Your task to perform on an android device: Open the web browser Image 0: 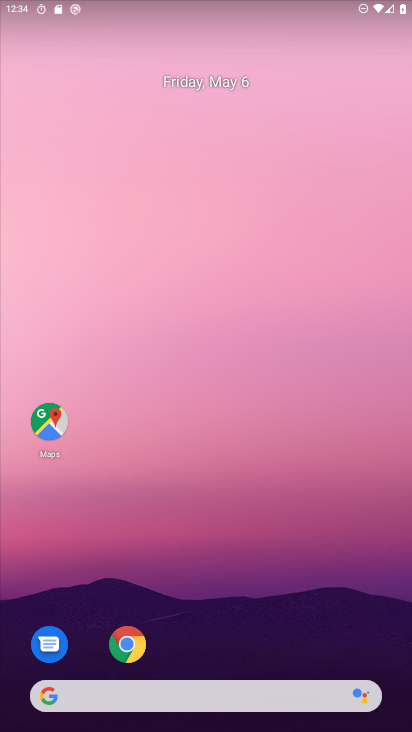
Step 0: drag from (322, 554) to (274, 105)
Your task to perform on an android device: Open the web browser Image 1: 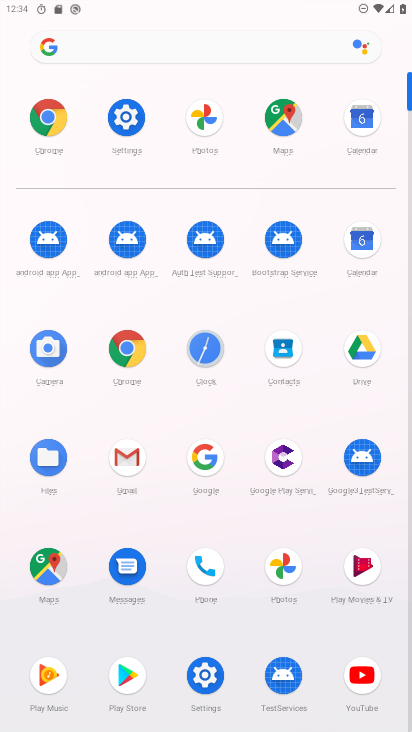
Step 1: click (137, 357)
Your task to perform on an android device: Open the web browser Image 2: 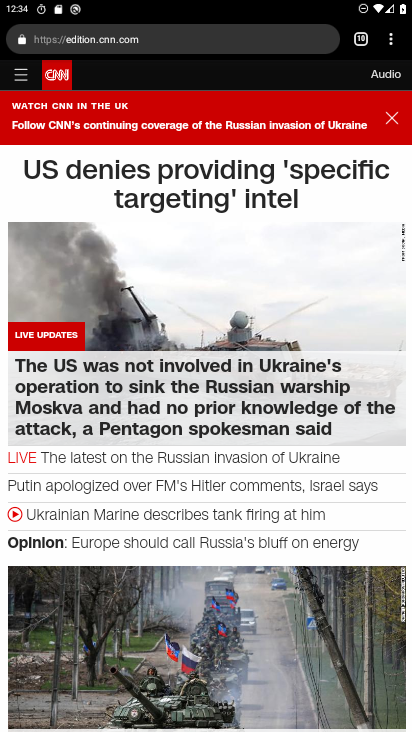
Step 2: task complete